Your task to perform on an android device: Go to accessibility settings Image 0: 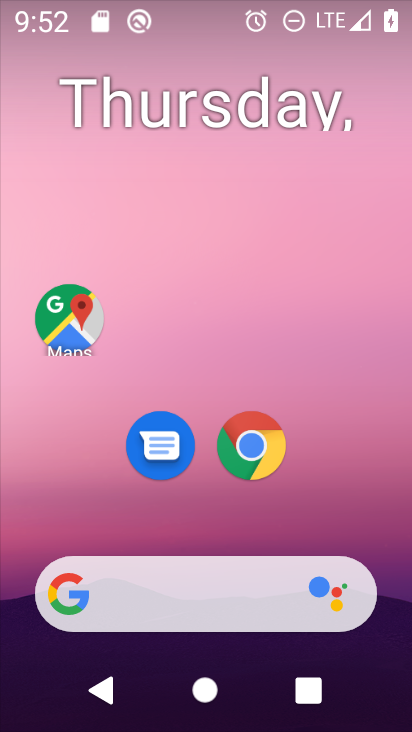
Step 0: drag from (403, 610) to (329, 66)
Your task to perform on an android device: Go to accessibility settings Image 1: 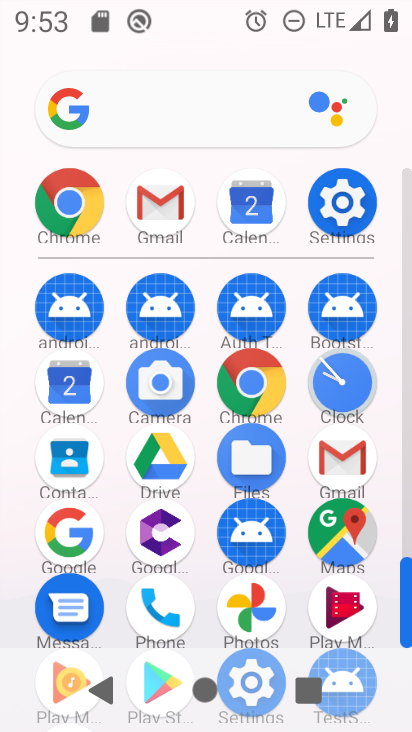
Step 1: click (337, 224)
Your task to perform on an android device: Go to accessibility settings Image 2: 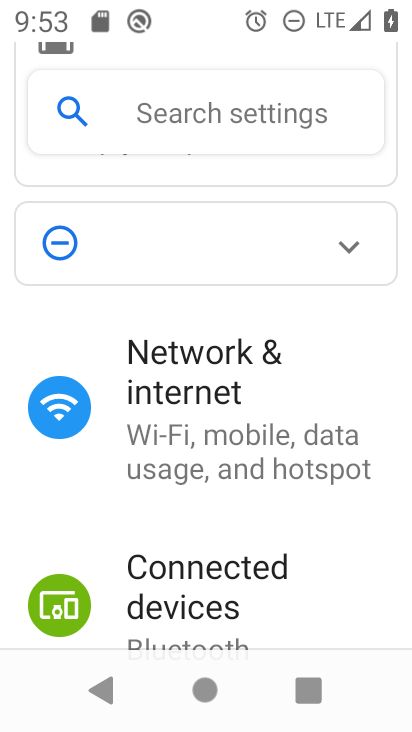
Step 2: click (130, 619)
Your task to perform on an android device: Go to accessibility settings Image 3: 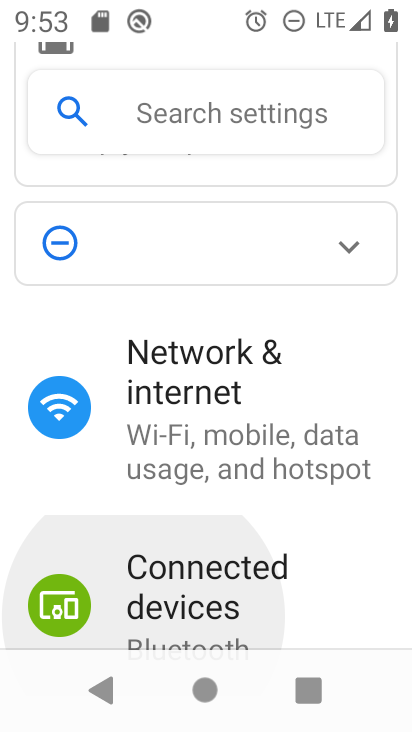
Step 3: drag from (148, 311) to (122, 11)
Your task to perform on an android device: Go to accessibility settings Image 4: 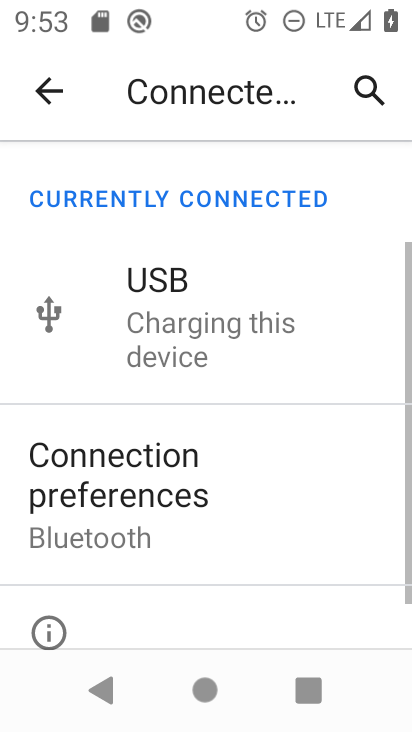
Step 4: drag from (93, 581) to (146, 94)
Your task to perform on an android device: Go to accessibility settings Image 5: 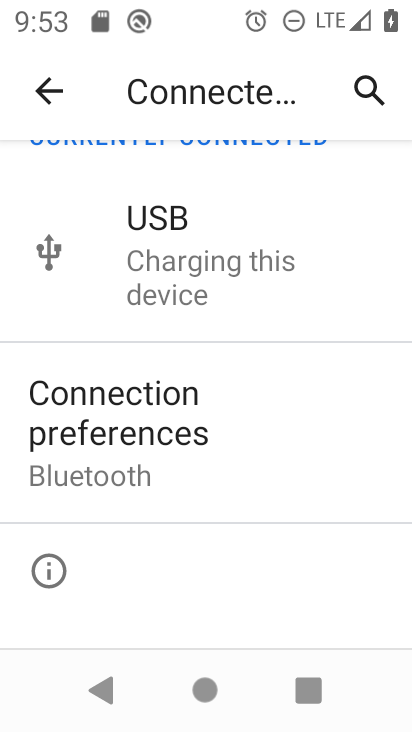
Step 5: press back button
Your task to perform on an android device: Go to accessibility settings Image 6: 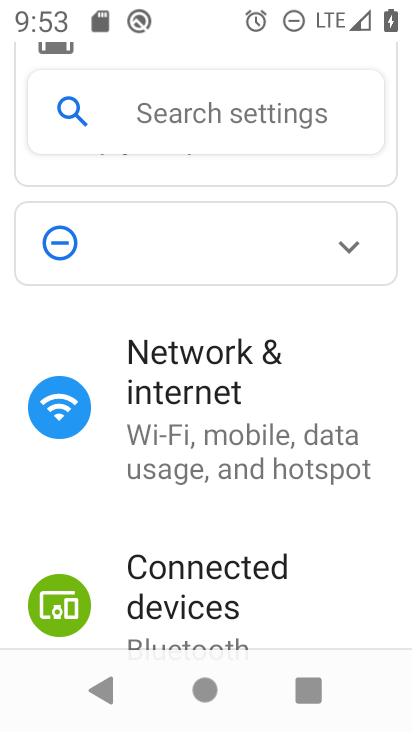
Step 6: drag from (176, 551) to (201, 93)
Your task to perform on an android device: Go to accessibility settings Image 7: 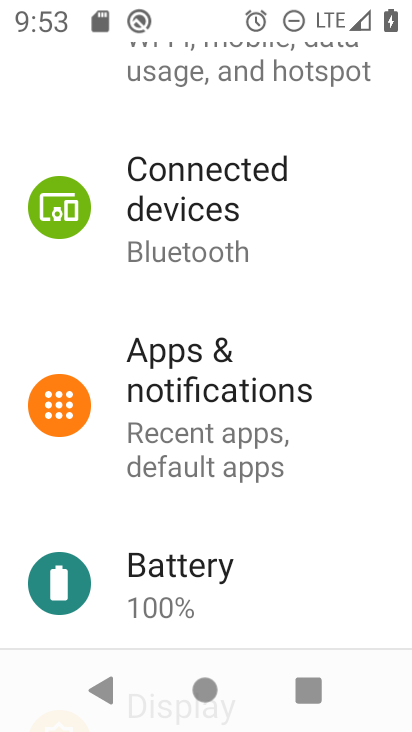
Step 7: drag from (172, 614) to (188, 24)
Your task to perform on an android device: Go to accessibility settings Image 8: 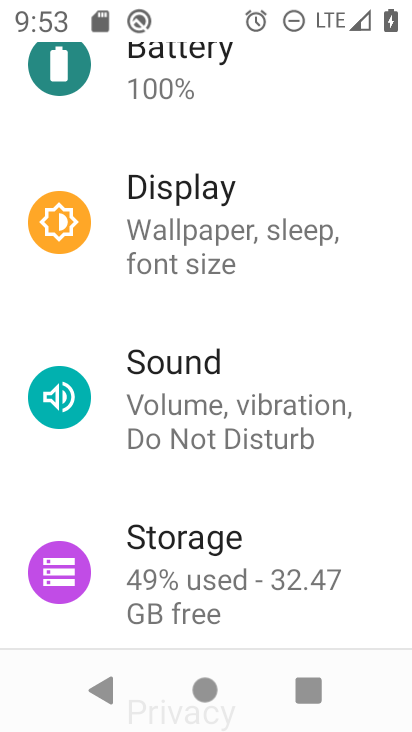
Step 8: drag from (133, 627) to (403, 466)
Your task to perform on an android device: Go to accessibility settings Image 9: 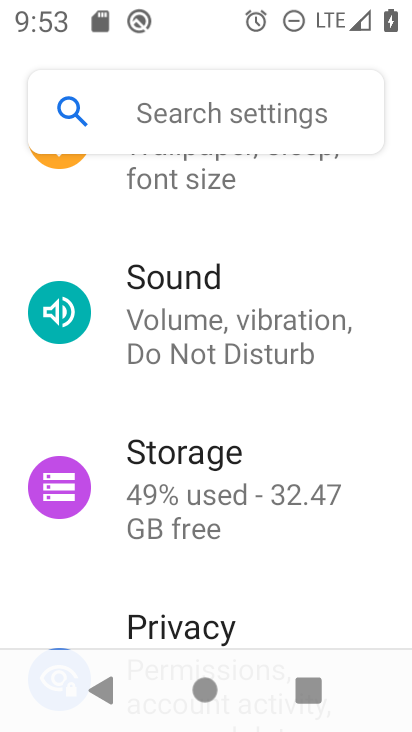
Step 9: drag from (302, 606) to (306, 87)
Your task to perform on an android device: Go to accessibility settings Image 10: 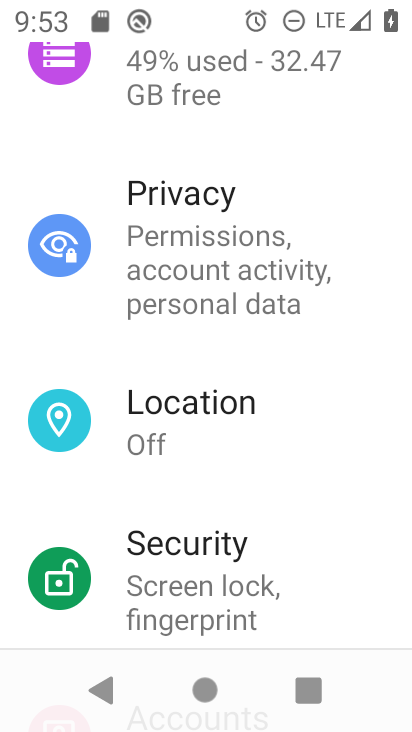
Step 10: drag from (236, 507) to (253, 44)
Your task to perform on an android device: Go to accessibility settings Image 11: 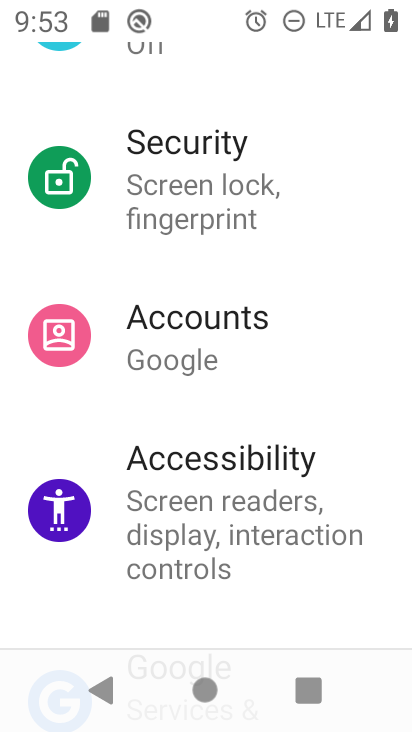
Step 11: click (220, 482)
Your task to perform on an android device: Go to accessibility settings Image 12: 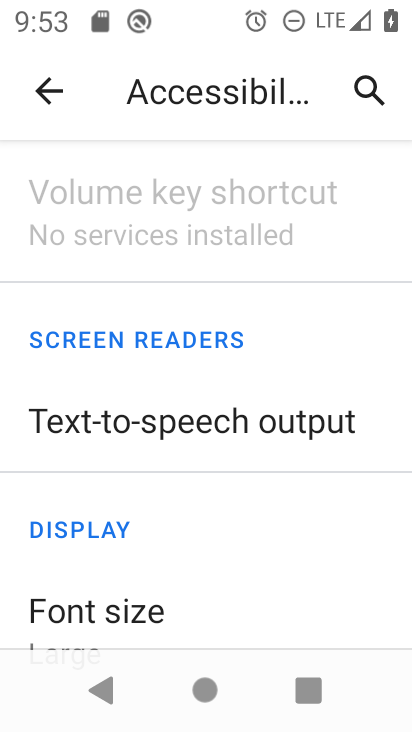
Step 12: task complete